Your task to perform on an android device: What's the weather? Image 0: 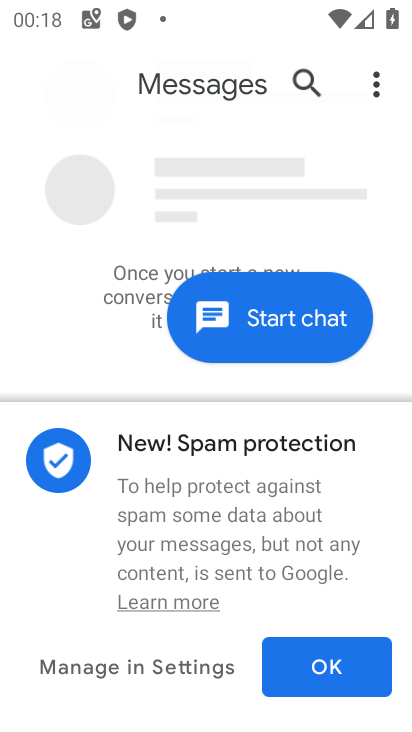
Step 0: press home button
Your task to perform on an android device: What's the weather? Image 1: 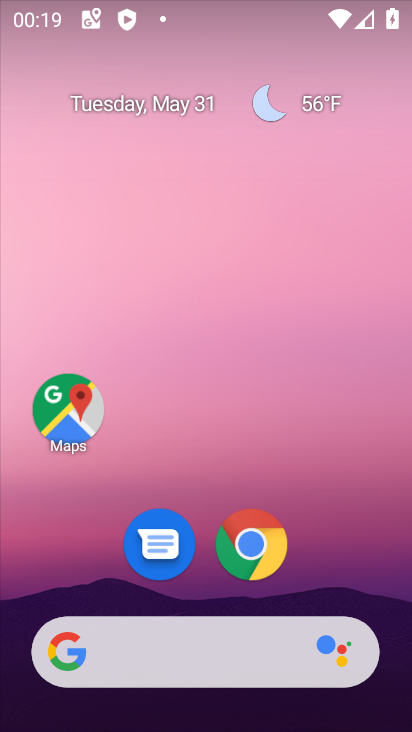
Step 1: click (218, 653)
Your task to perform on an android device: What's the weather? Image 2: 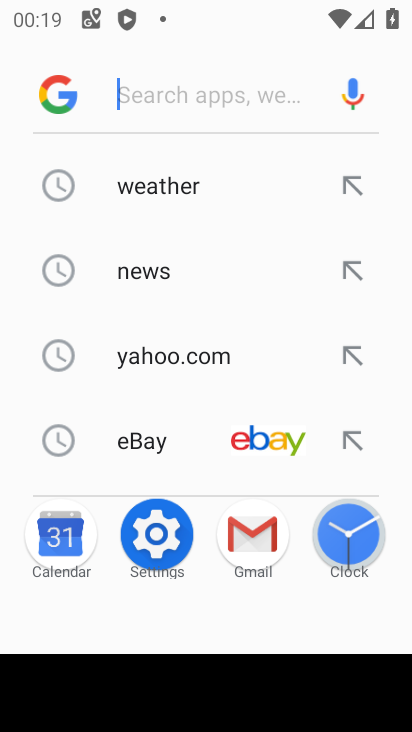
Step 2: click (158, 174)
Your task to perform on an android device: What's the weather? Image 3: 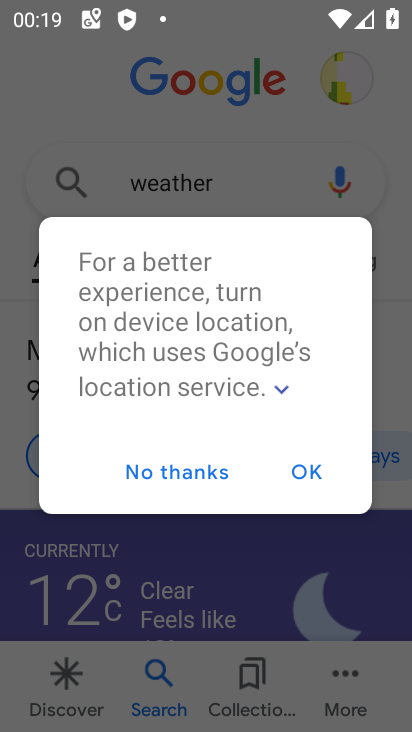
Step 3: drag from (213, 541) to (154, 296)
Your task to perform on an android device: What's the weather? Image 4: 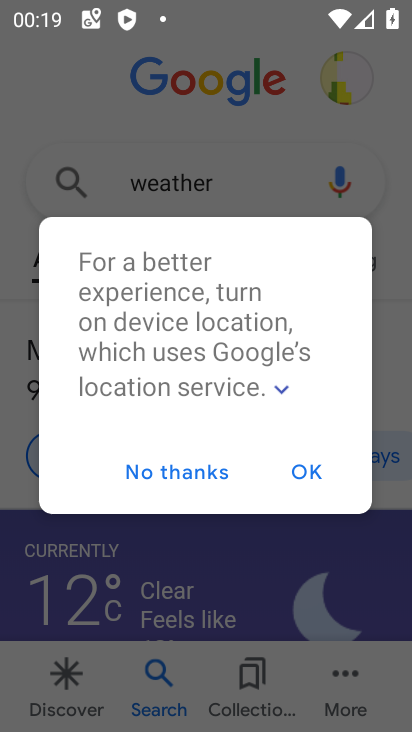
Step 4: click (300, 464)
Your task to perform on an android device: What's the weather? Image 5: 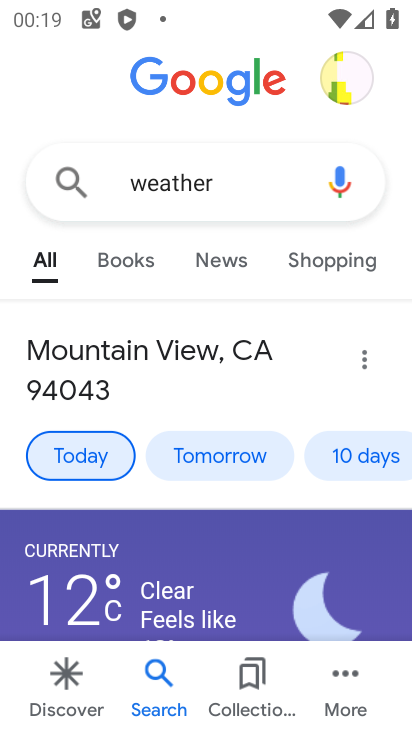
Step 5: task complete